Your task to perform on an android device: Search for Italian restaurants on Maps Image 0: 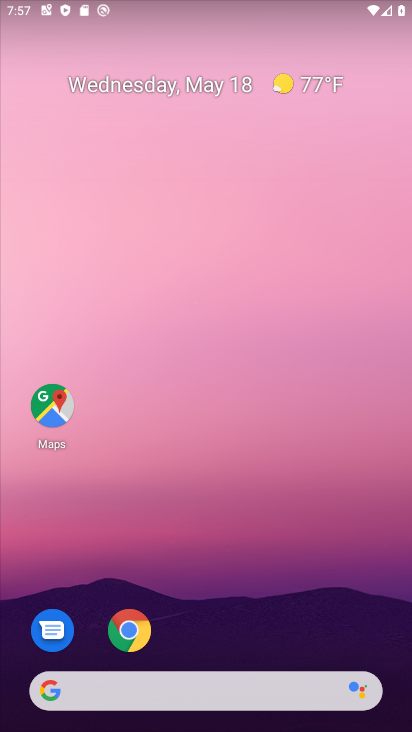
Step 0: click (44, 394)
Your task to perform on an android device: Search for Italian restaurants on Maps Image 1: 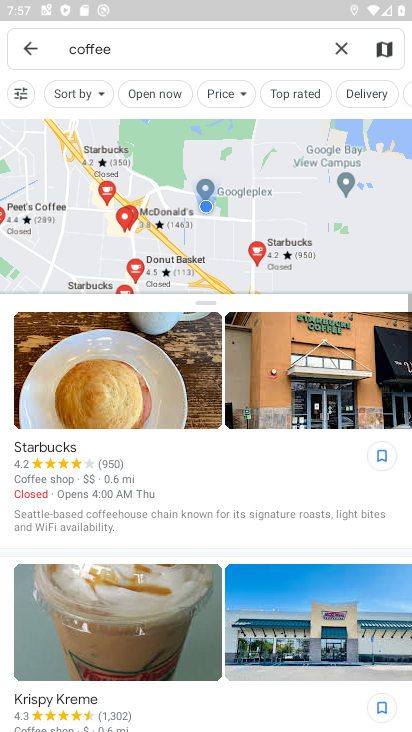
Step 1: click (344, 49)
Your task to perform on an android device: Search for Italian restaurants on Maps Image 2: 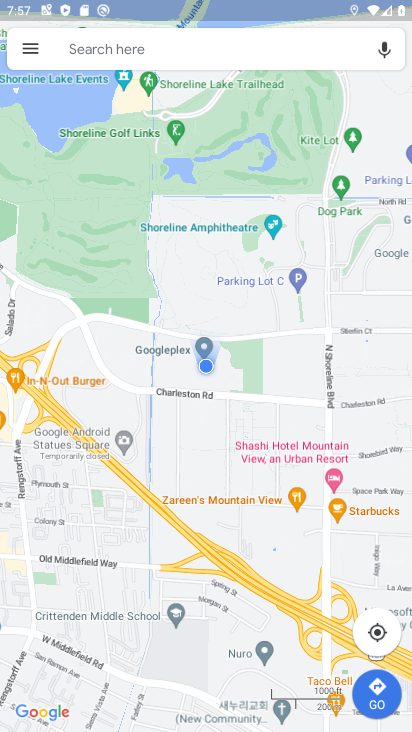
Step 2: click (169, 46)
Your task to perform on an android device: Search for Italian restaurants on Maps Image 3: 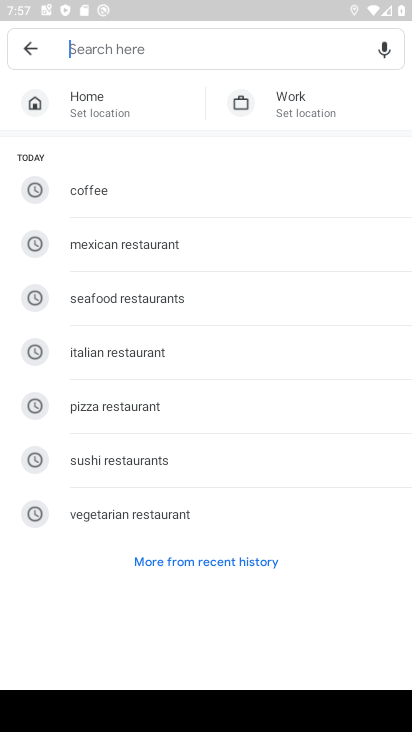
Step 3: type "Italian restaurant"
Your task to perform on an android device: Search for Italian restaurants on Maps Image 4: 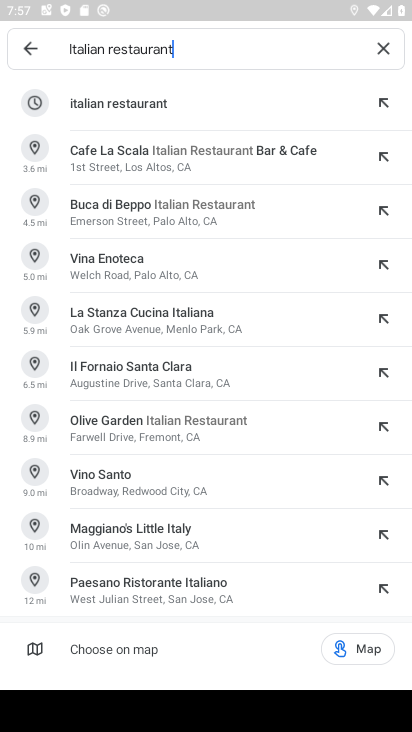
Step 4: click (137, 114)
Your task to perform on an android device: Search for Italian restaurants on Maps Image 5: 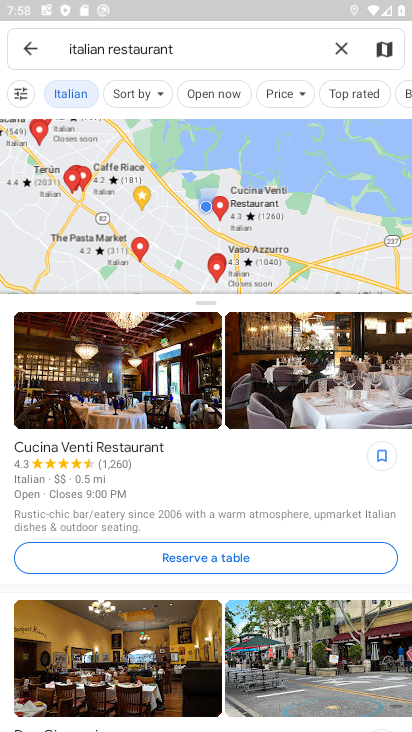
Step 5: task complete